Your task to perform on an android device: snooze an email in the gmail app Image 0: 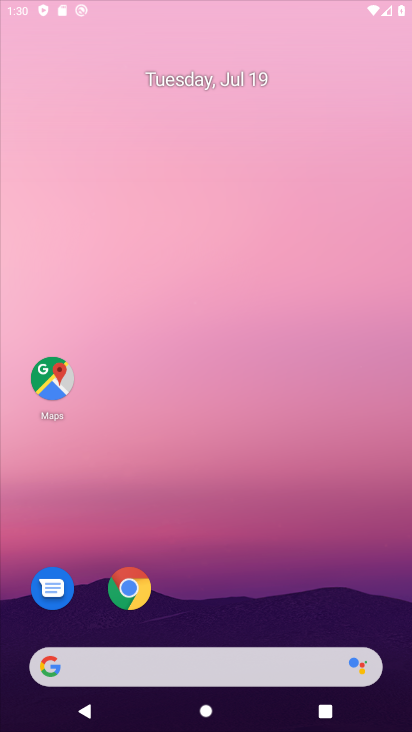
Step 0: drag from (266, 581) to (196, 123)
Your task to perform on an android device: snooze an email in the gmail app Image 1: 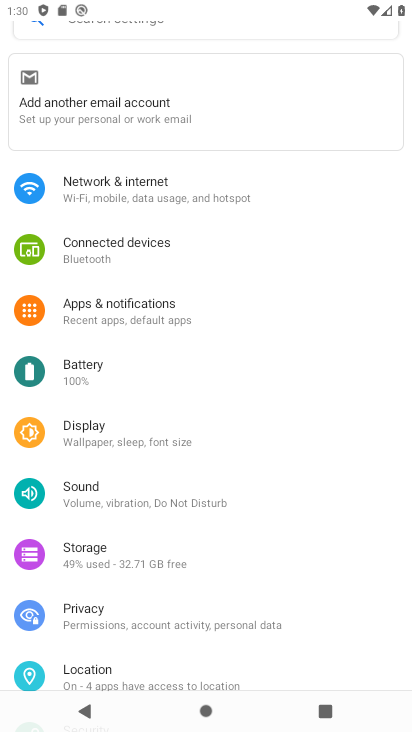
Step 1: press home button
Your task to perform on an android device: snooze an email in the gmail app Image 2: 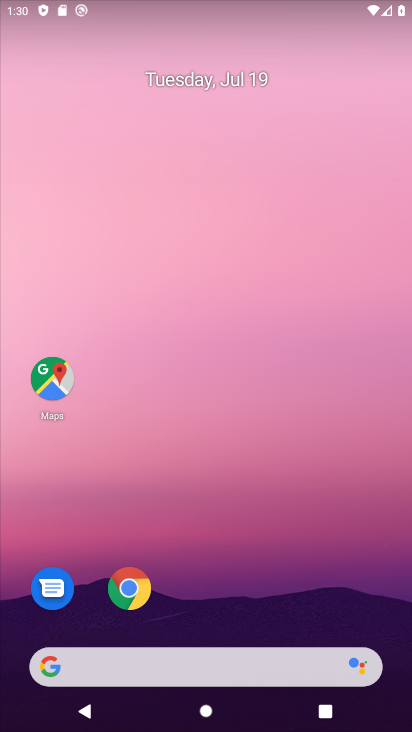
Step 2: drag from (251, 537) to (164, 147)
Your task to perform on an android device: snooze an email in the gmail app Image 3: 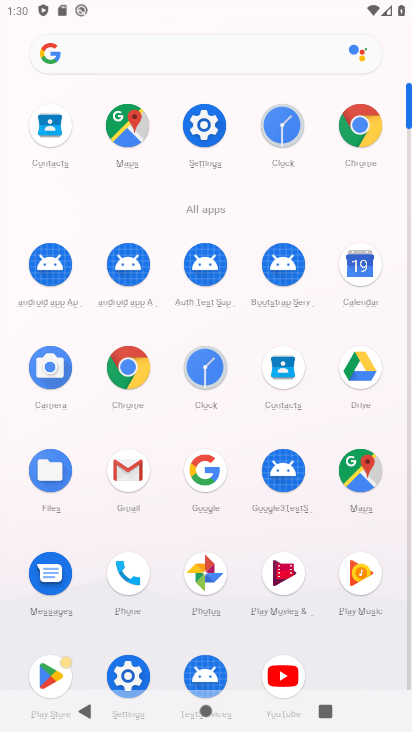
Step 3: click (123, 464)
Your task to perform on an android device: snooze an email in the gmail app Image 4: 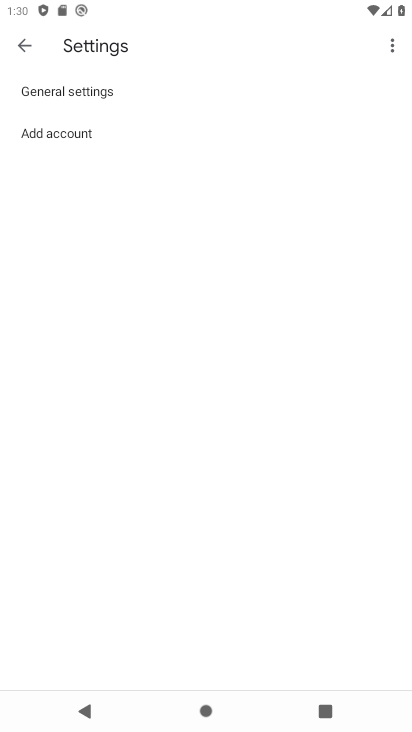
Step 4: click (19, 43)
Your task to perform on an android device: snooze an email in the gmail app Image 5: 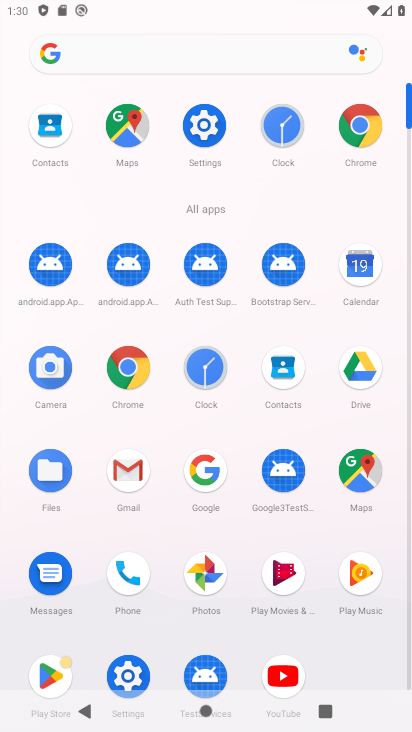
Step 5: click (129, 452)
Your task to perform on an android device: snooze an email in the gmail app Image 6: 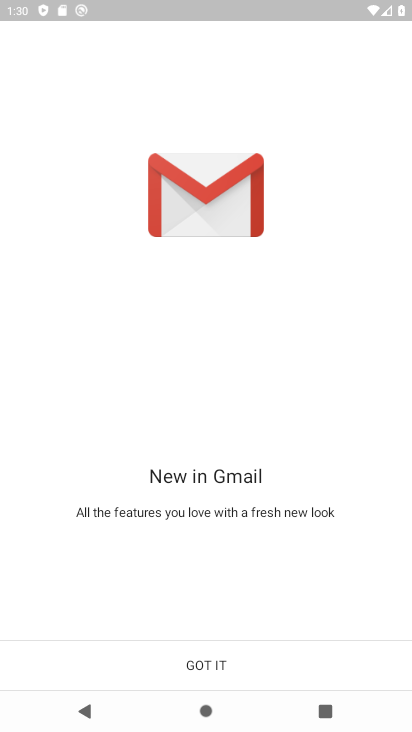
Step 6: click (225, 657)
Your task to perform on an android device: snooze an email in the gmail app Image 7: 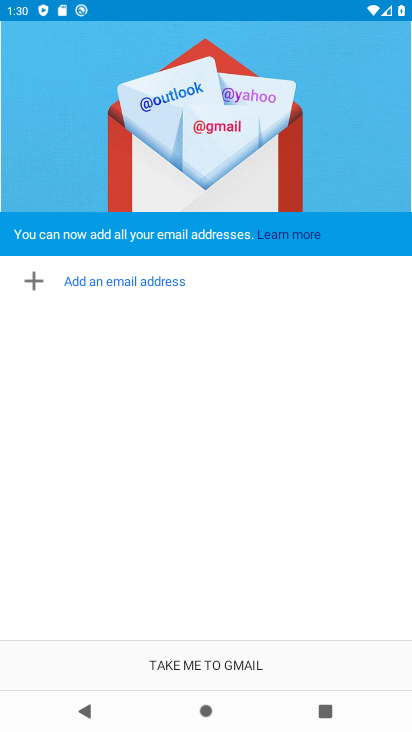
Step 7: click (225, 657)
Your task to perform on an android device: snooze an email in the gmail app Image 8: 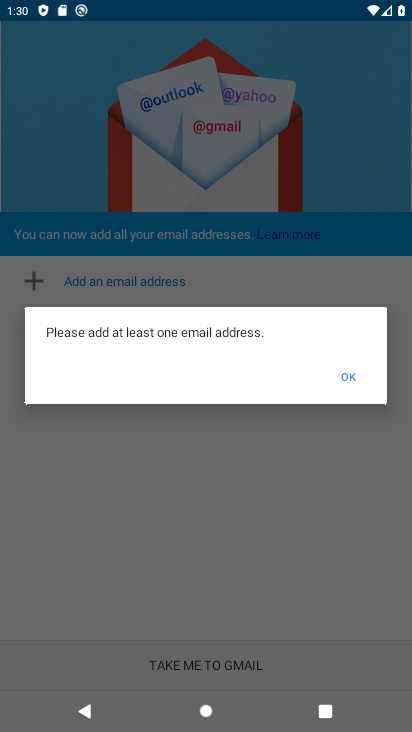
Step 8: task complete